Your task to perform on an android device: refresh tabs in the chrome app Image 0: 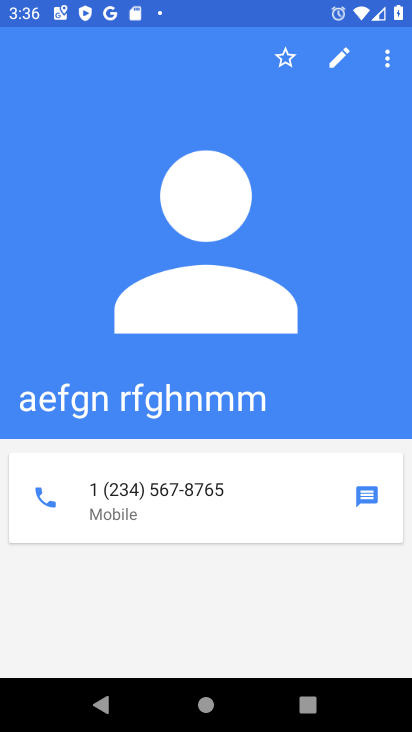
Step 0: press home button
Your task to perform on an android device: refresh tabs in the chrome app Image 1: 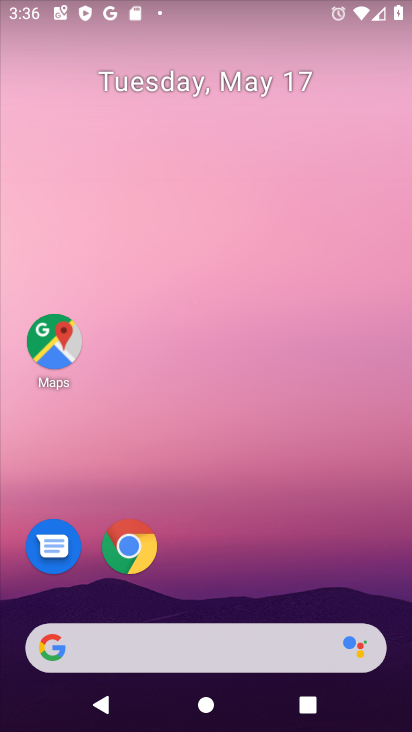
Step 1: click (143, 545)
Your task to perform on an android device: refresh tabs in the chrome app Image 2: 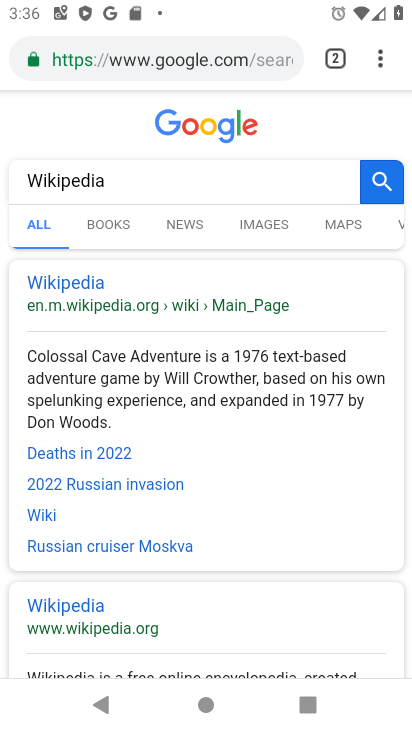
Step 2: click (380, 57)
Your task to perform on an android device: refresh tabs in the chrome app Image 3: 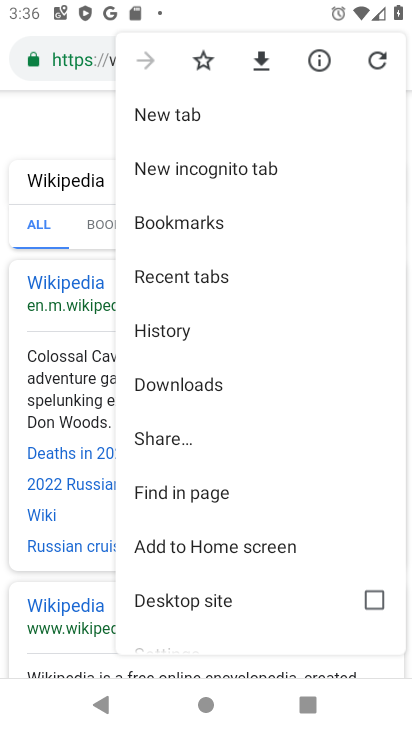
Step 3: click (189, 108)
Your task to perform on an android device: refresh tabs in the chrome app Image 4: 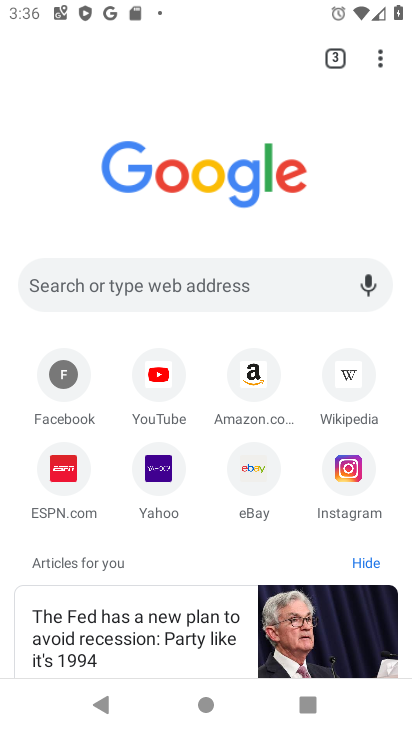
Step 4: click (380, 61)
Your task to perform on an android device: refresh tabs in the chrome app Image 5: 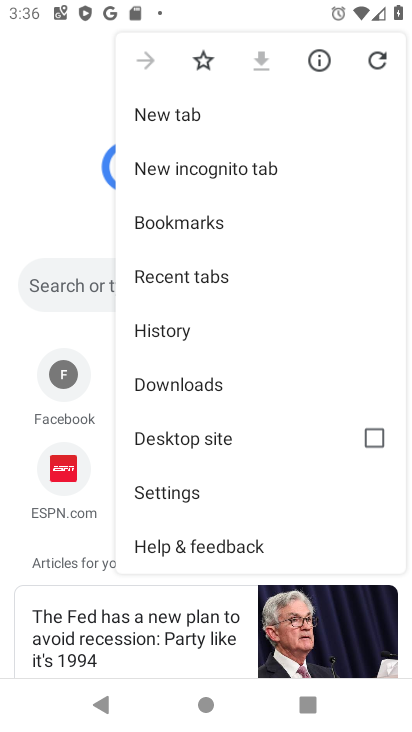
Step 5: click (366, 58)
Your task to perform on an android device: refresh tabs in the chrome app Image 6: 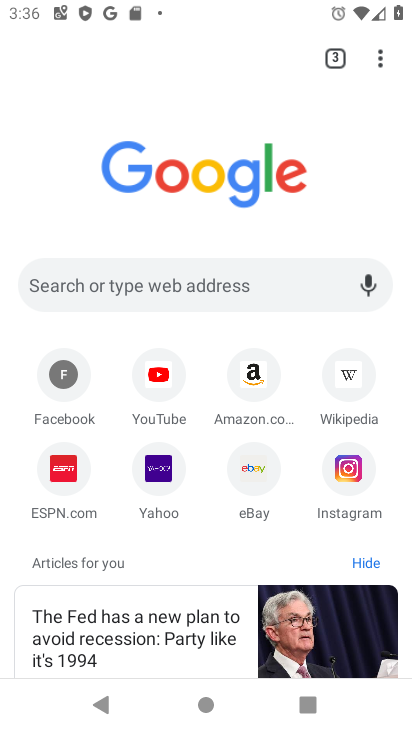
Step 6: task complete